Your task to perform on an android device: add a label to a message in the gmail app Image 0: 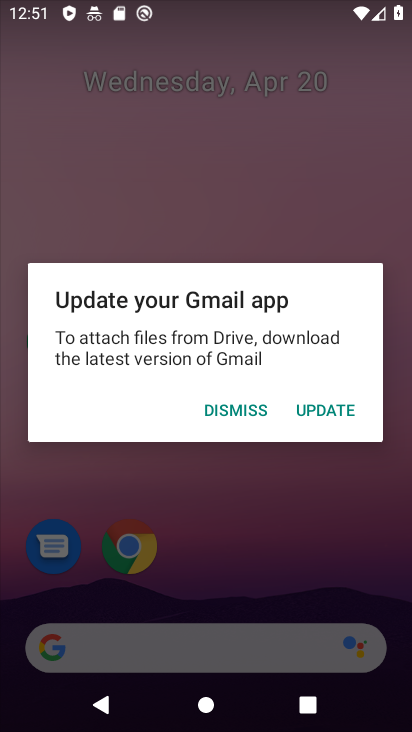
Step 0: click (331, 410)
Your task to perform on an android device: add a label to a message in the gmail app Image 1: 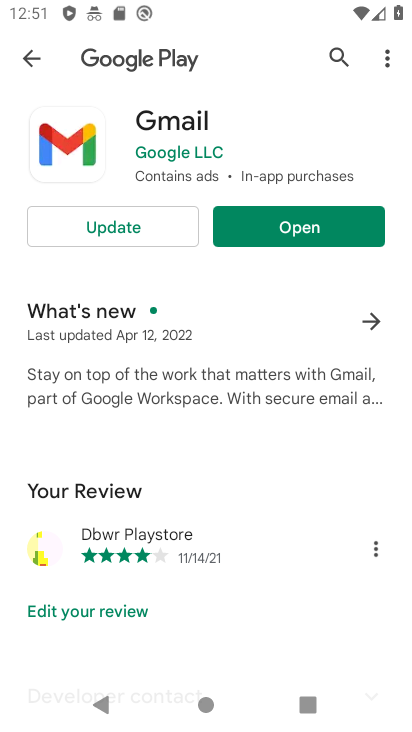
Step 1: click (133, 235)
Your task to perform on an android device: add a label to a message in the gmail app Image 2: 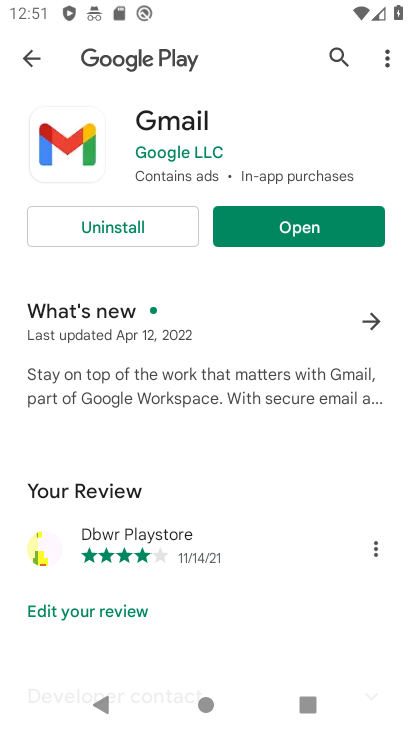
Step 2: click (322, 230)
Your task to perform on an android device: add a label to a message in the gmail app Image 3: 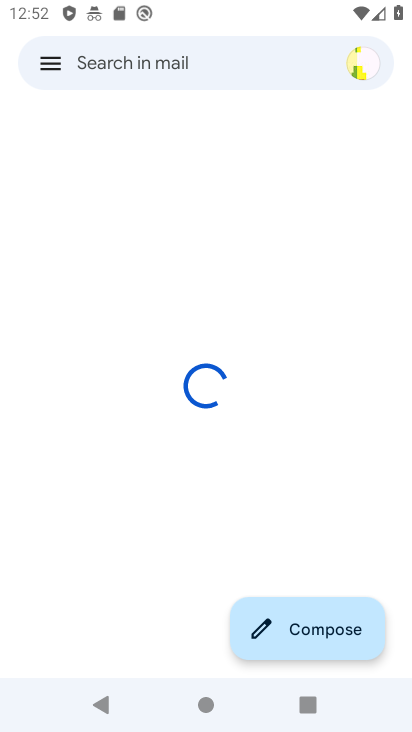
Step 3: click (37, 72)
Your task to perform on an android device: add a label to a message in the gmail app Image 4: 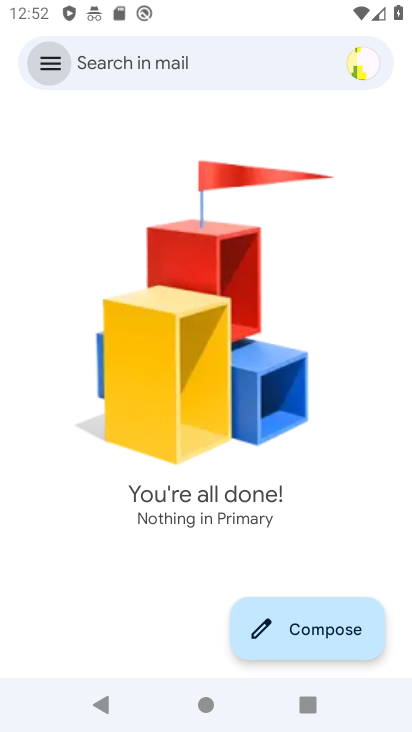
Step 4: click (44, 60)
Your task to perform on an android device: add a label to a message in the gmail app Image 5: 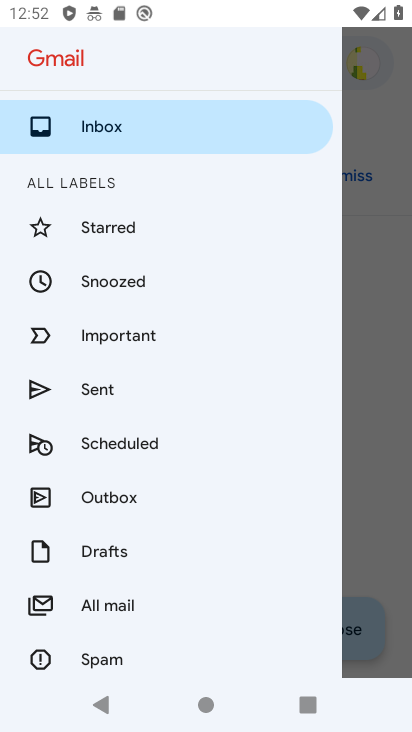
Step 5: click (136, 598)
Your task to perform on an android device: add a label to a message in the gmail app Image 6: 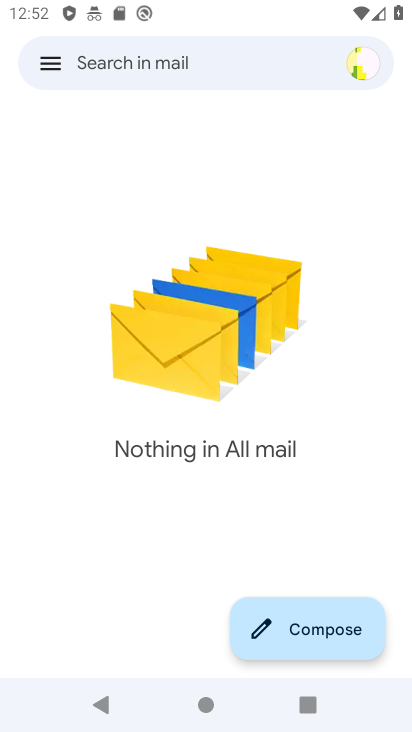
Step 6: task complete